Your task to perform on an android device: When is my next appointment? Image 0: 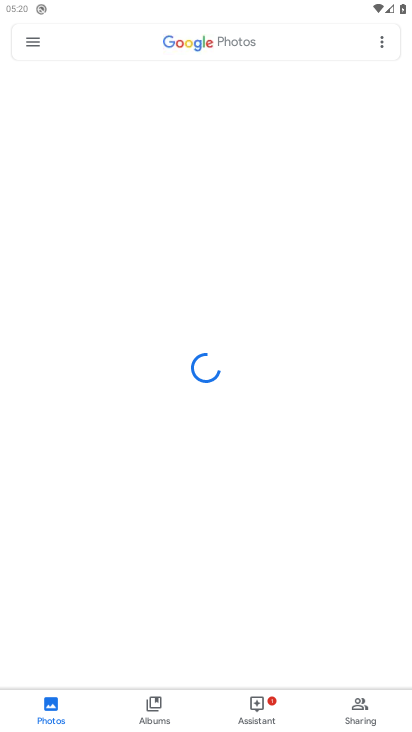
Step 0: press home button
Your task to perform on an android device: When is my next appointment? Image 1: 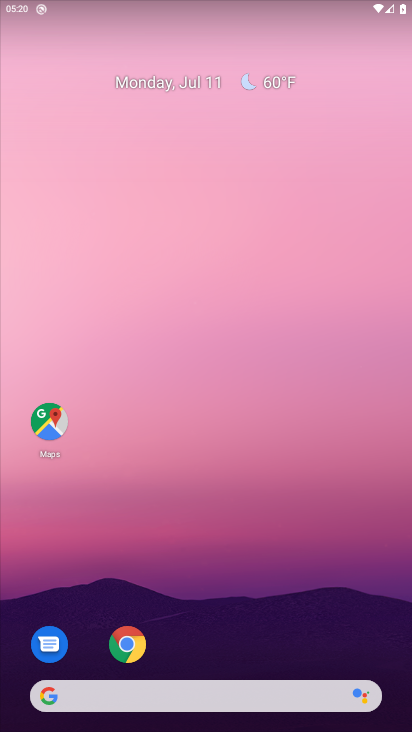
Step 1: drag from (253, 648) to (239, 369)
Your task to perform on an android device: When is my next appointment? Image 2: 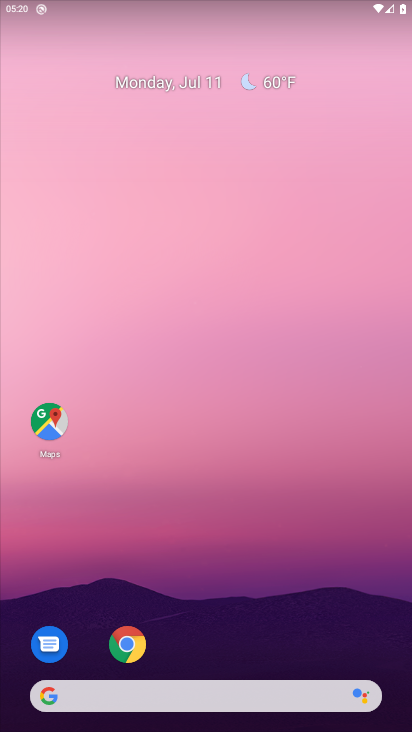
Step 2: drag from (165, 686) to (134, 236)
Your task to perform on an android device: When is my next appointment? Image 3: 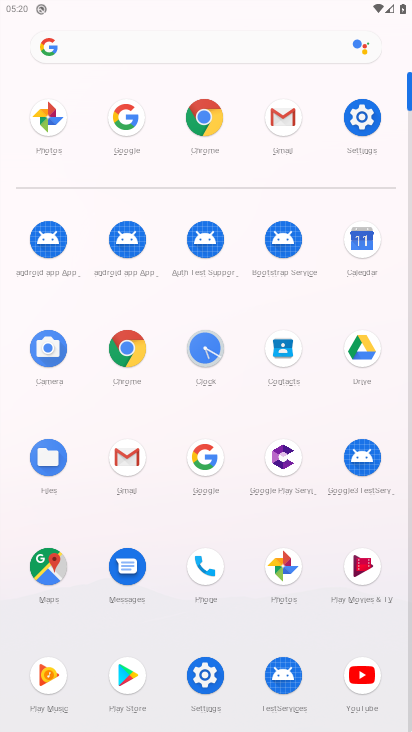
Step 3: click (363, 245)
Your task to perform on an android device: When is my next appointment? Image 4: 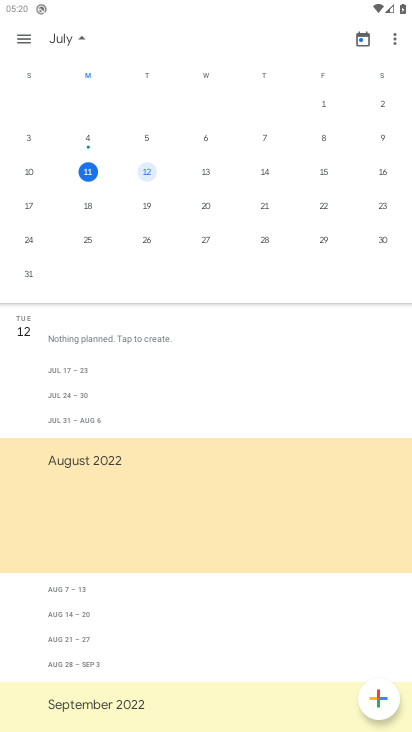
Step 4: click (76, 364)
Your task to perform on an android device: When is my next appointment? Image 5: 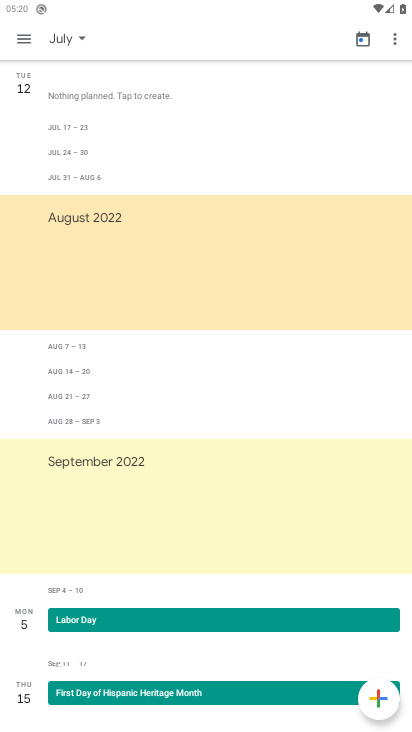
Step 5: task complete